Your task to perform on an android device: empty trash in the gmail app Image 0: 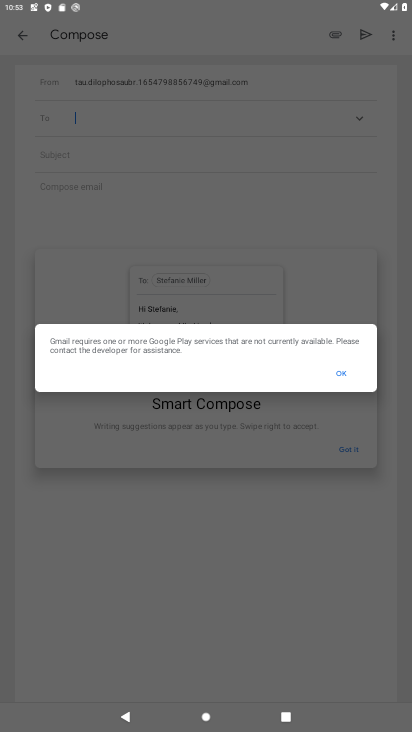
Step 0: press home button
Your task to perform on an android device: empty trash in the gmail app Image 1: 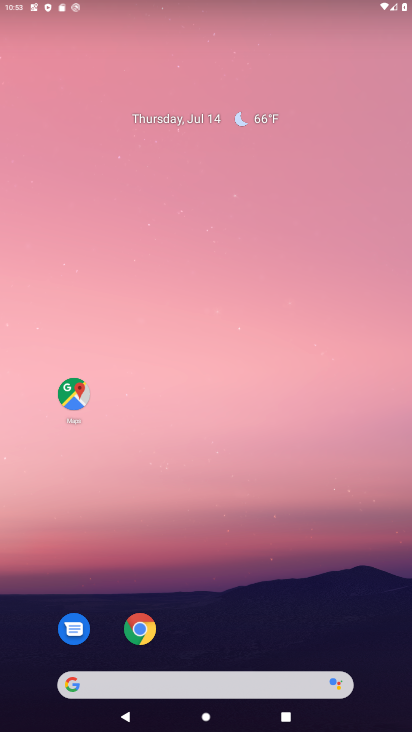
Step 1: drag from (305, 578) to (292, 87)
Your task to perform on an android device: empty trash in the gmail app Image 2: 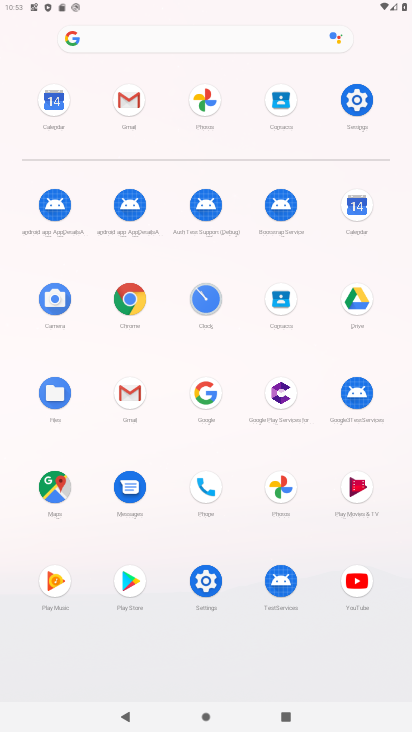
Step 2: click (116, 109)
Your task to perform on an android device: empty trash in the gmail app Image 3: 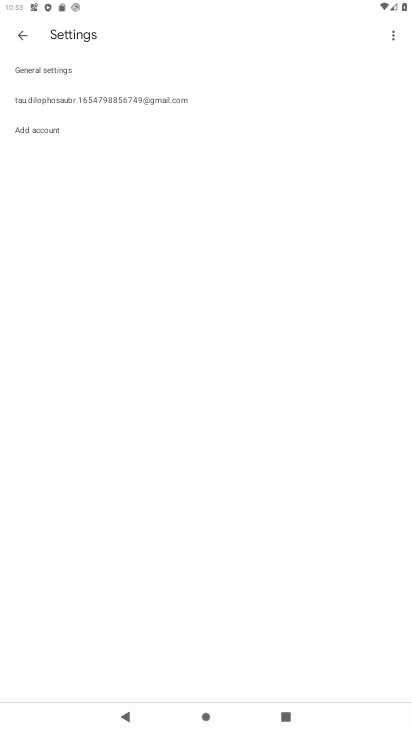
Step 3: click (66, 103)
Your task to perform on an android device: empty trash in the gmail app Image 4: 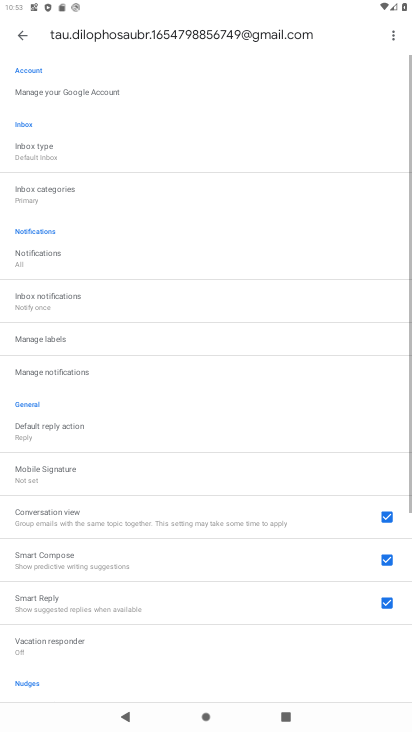
Step 4: click (21, 40)
Your task to perform on an android device: empty trash in the gmail app Image 5: 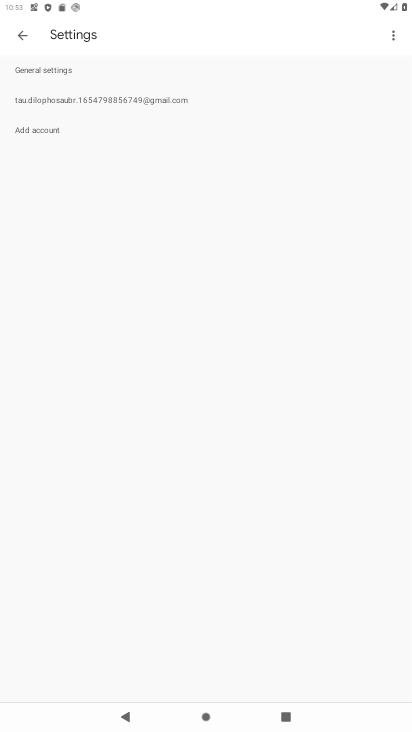
Step 5: click (21, 39)
Your task to perform on an android device: empty trash in the gmail app Image 6: 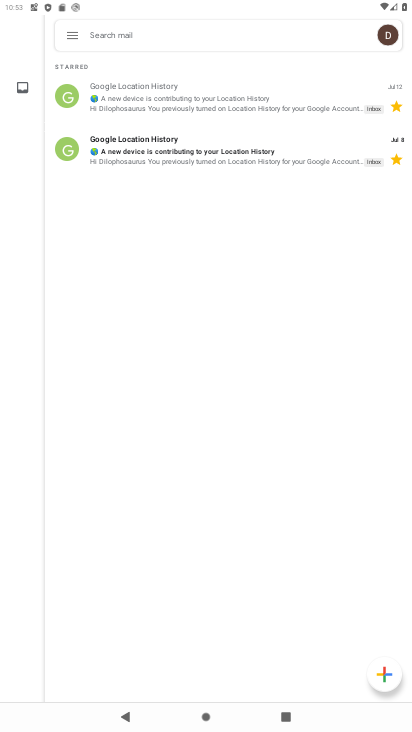
Step 6: click (72, 39)
Your task to perform on an android device: empty trash in the gmail app Image 7: 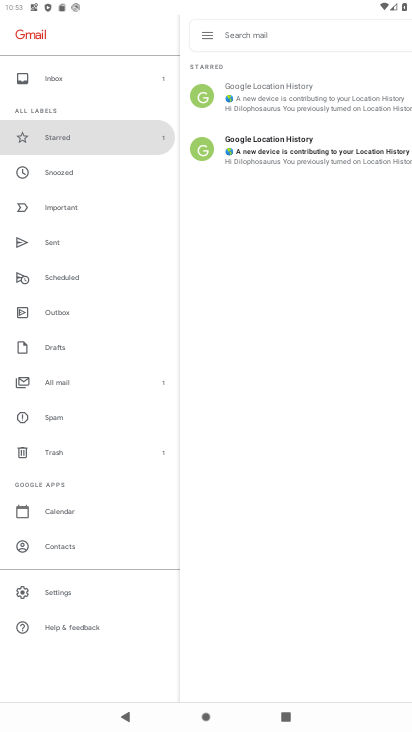
Step 7: click (50, 455)
Your task to perform on an android device: empty trash in the gmail app Image 8: 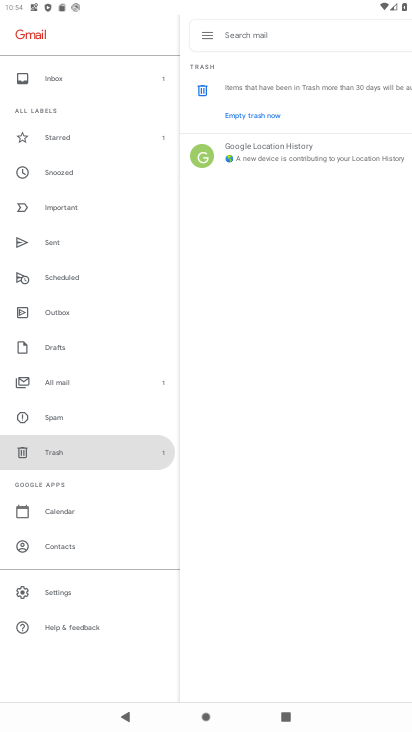
Step 8: click (250, 113)
Your task to perform on an android device: empty trash in the gmail app Image 9: 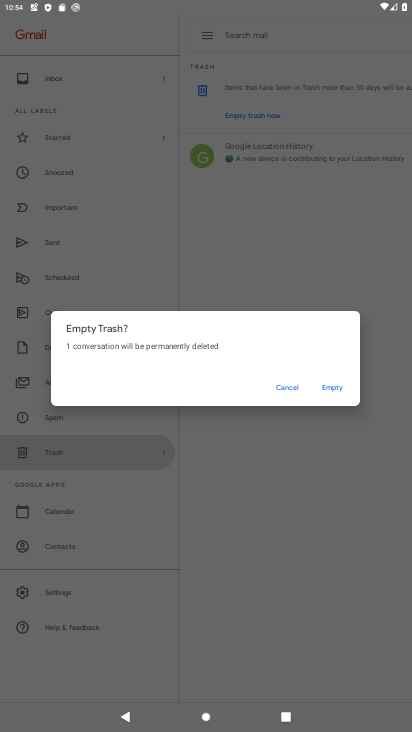
Step 9: click (327, 385)
Your task to perform on an android device: empty trash in the gmail app Image 10: 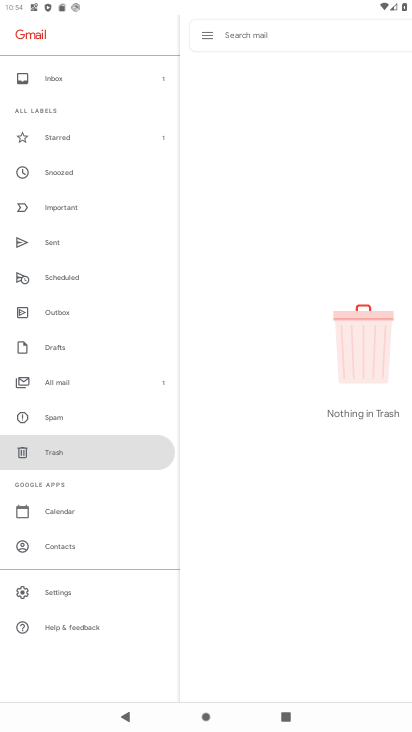
Step 10: task complete